Your task to perform on an android device: turn off wifi Image 0: 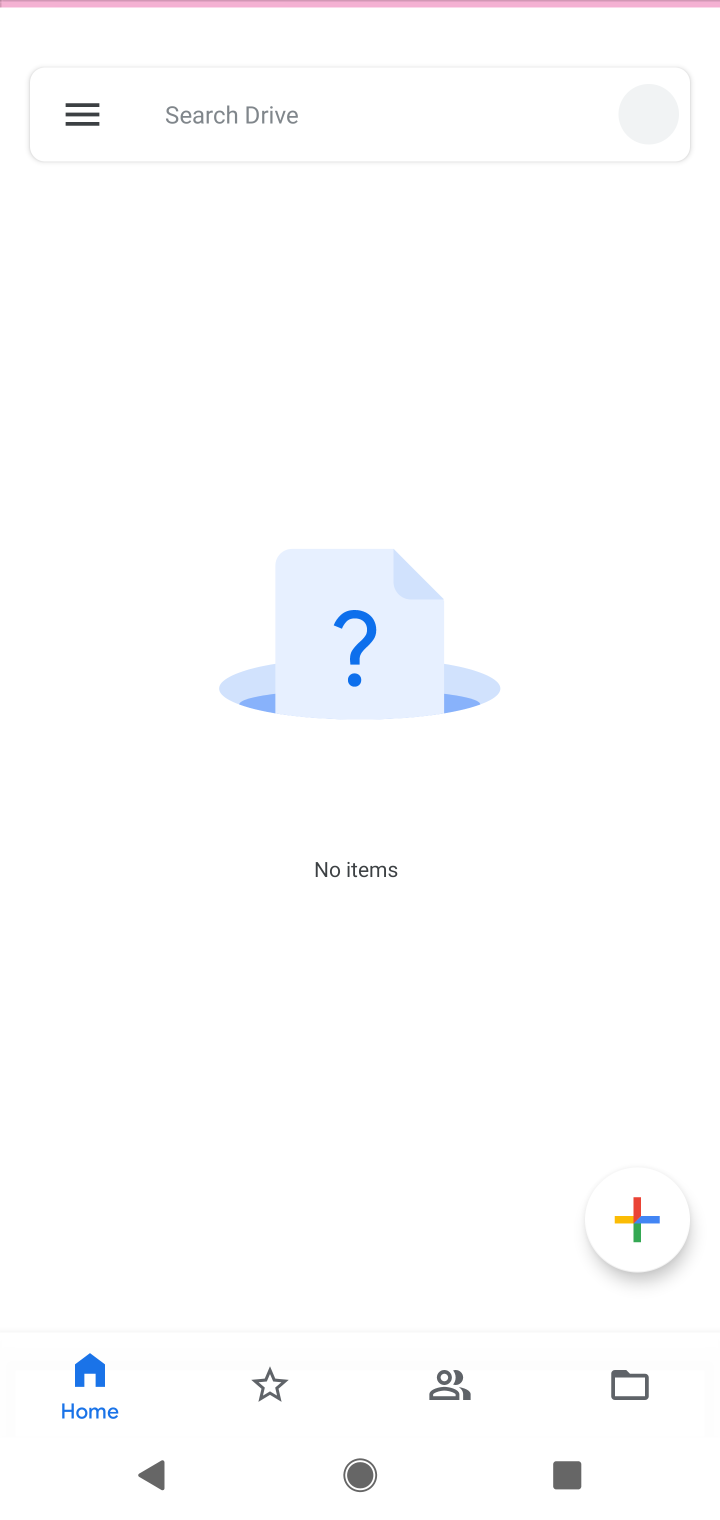
Step 0: press home button
Your task to perform on an android device: turn off wifi Image 1: 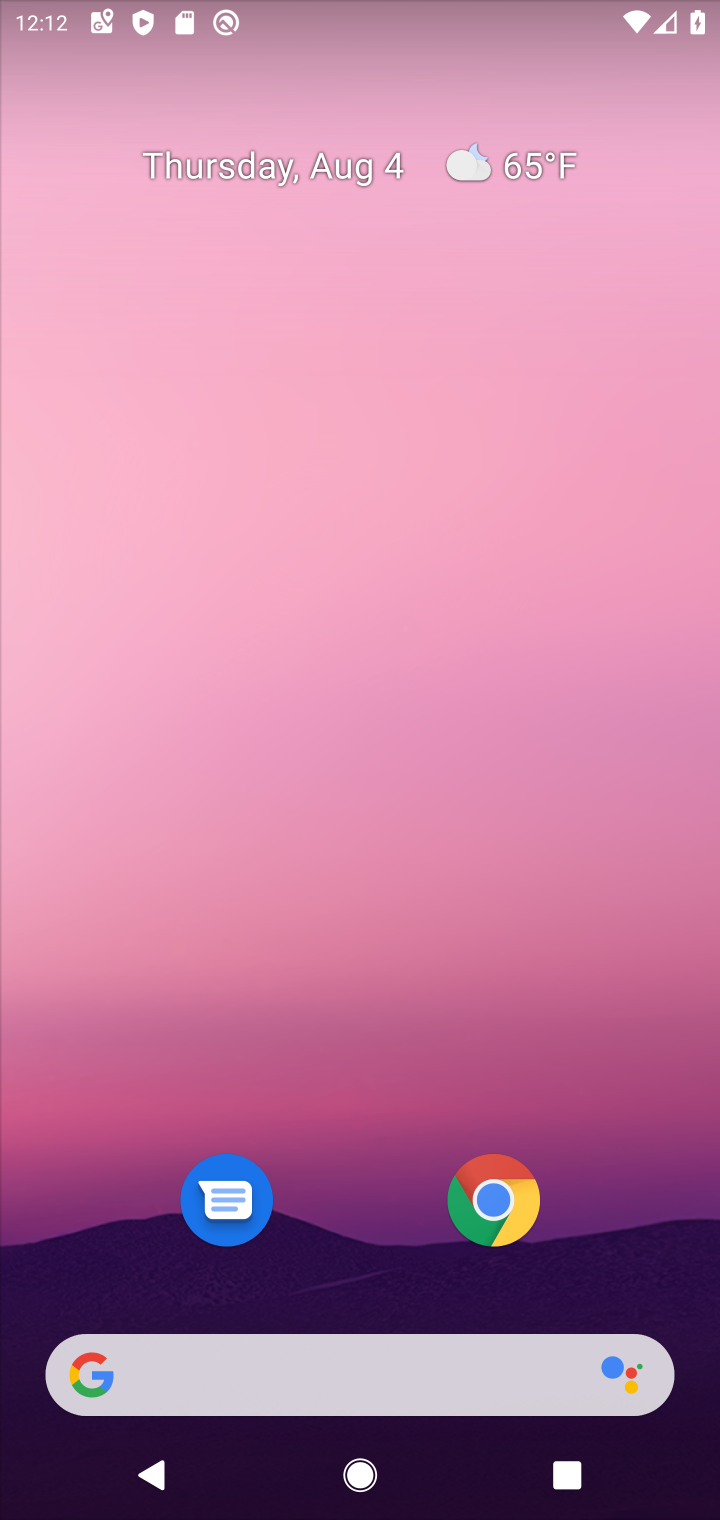
Step 1: drag from (364, 5) to (395, 1061)
Your task to perform on an android device: turn off wifi Image 2: 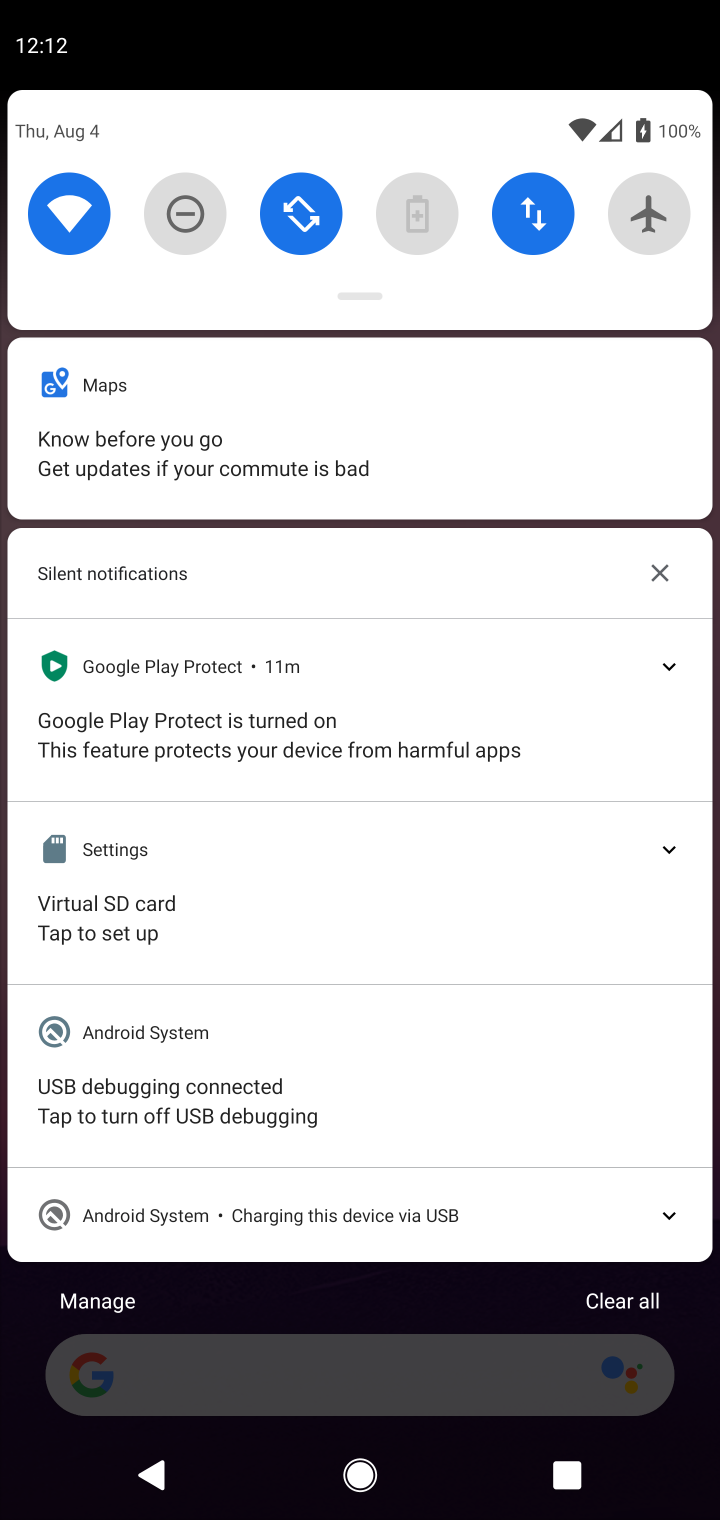
Step 2: click (61, 206)
Your task to perform on an android device: turn off wifi Image 3: 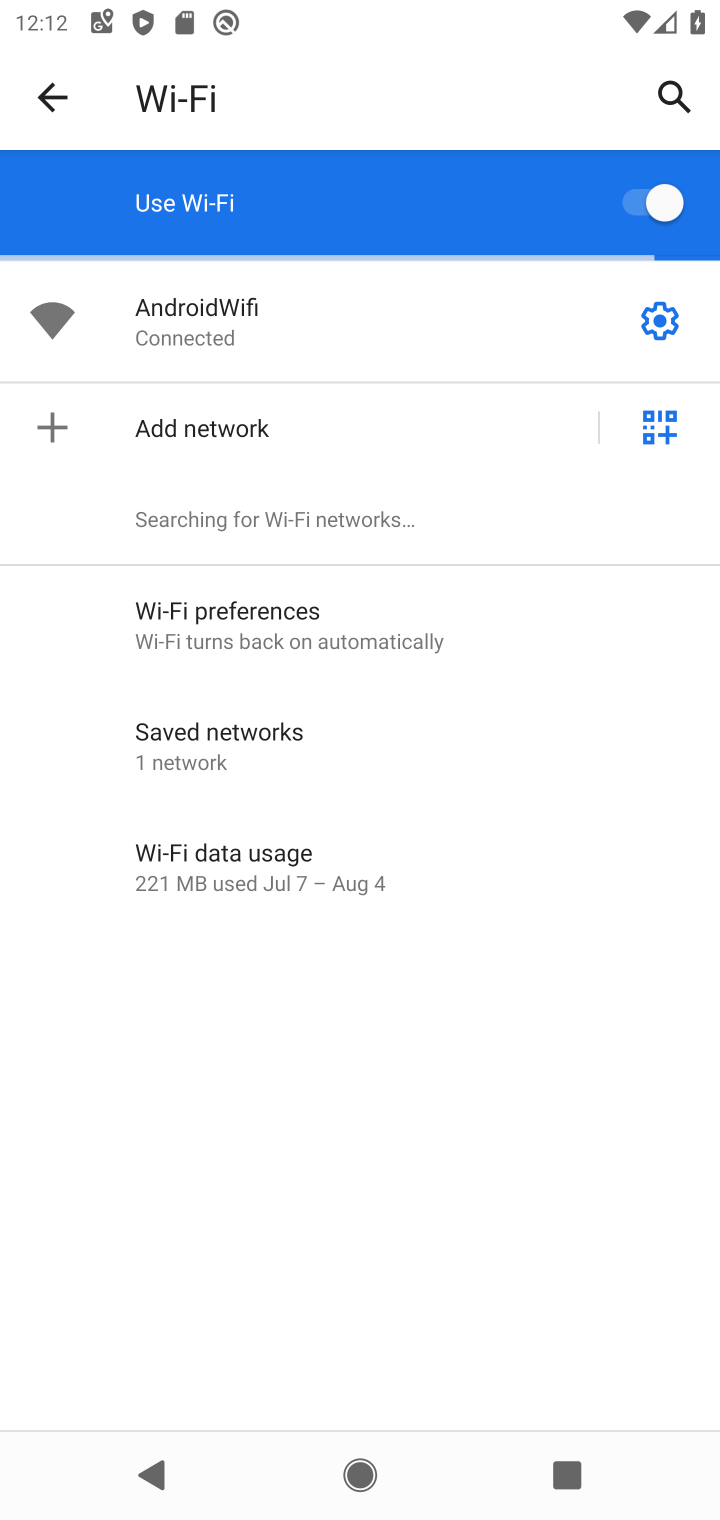
Step 3: click (591, 176)
Your task to perform on an android device: turn off wifi Image 4: 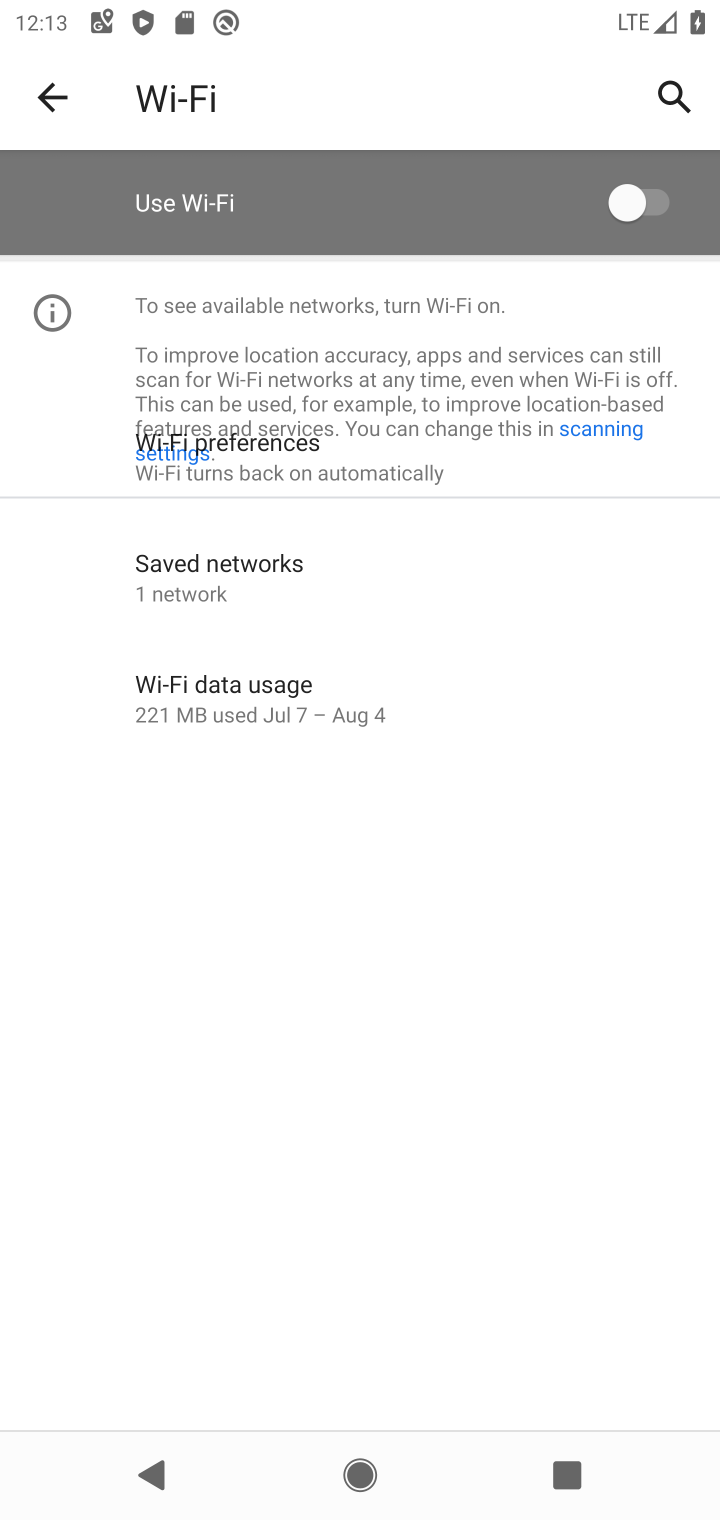
Step 4: task complete